Your task to perform on an android device: Search for Mexican restaurants on Maps Image 0: 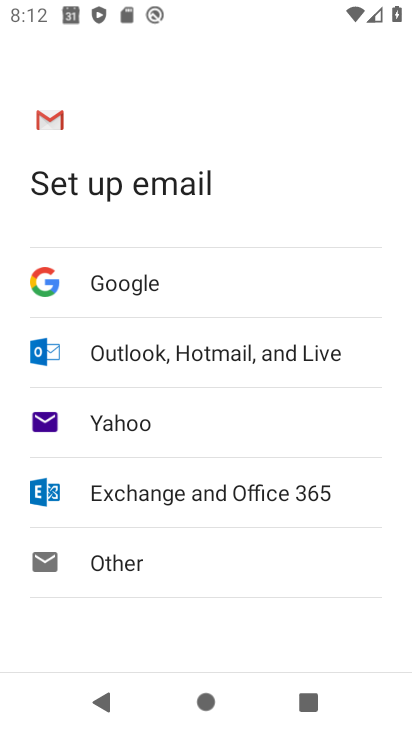
Step 0: press home button
Your task to perform on an android device: Search for Mexican restaurants on Maps Image 1: 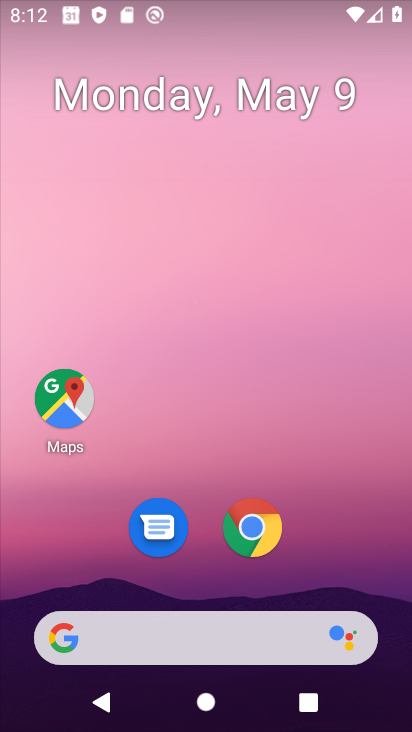
Step 1: click (63, 390)
Your task to perform on an android device: Search for Mexican restaurants on Maps Image 2: 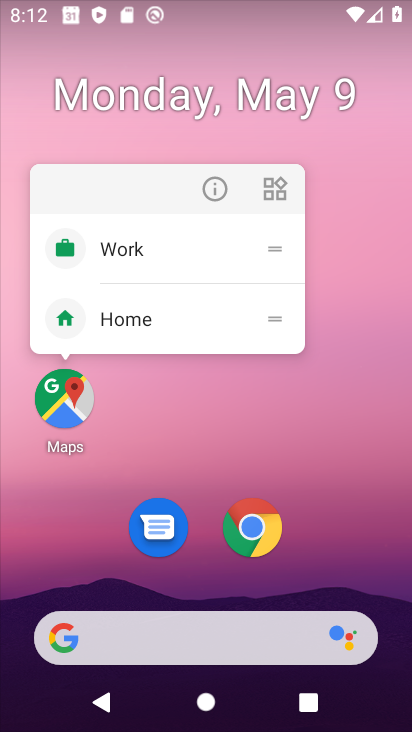
Step 2: click (63, 395)
Your task to perform on an android device: Search for Mexican restaurants on Maps Image 3: 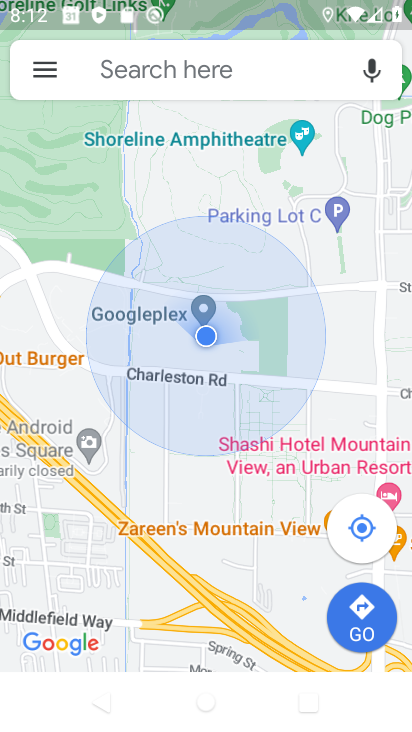
Step 3: click (157, 62)
Your task to perform on an android device: Search for Mexican restaurants on Maps Image 4: 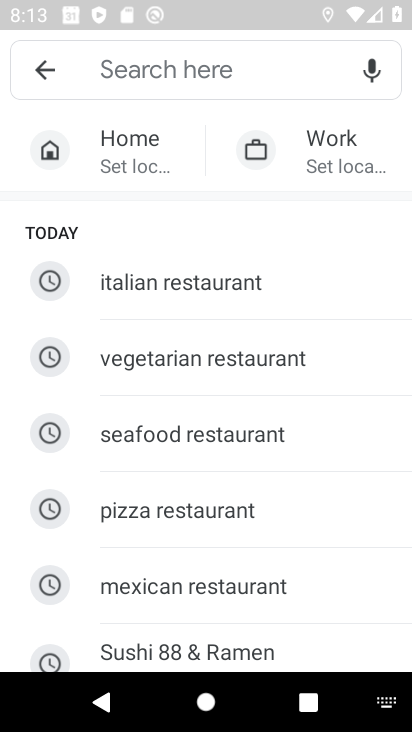
Step 4: click (154, 593)
Your task to perform on an android device: Search for Mexican restaurants on Maps Image 5: 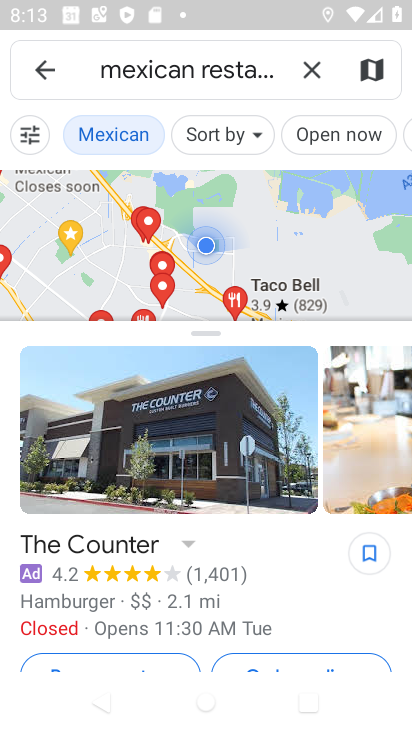
Step 5: task complete